Your task to perform on an android device: allow cookies in the chrome app Image 0: 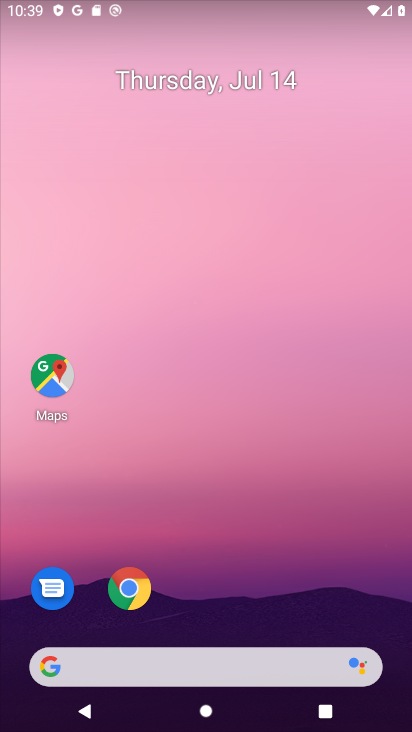
Step 0: click (142, 600)
Your task to perform on an android device: allow cookies in the chrome app Image 1: 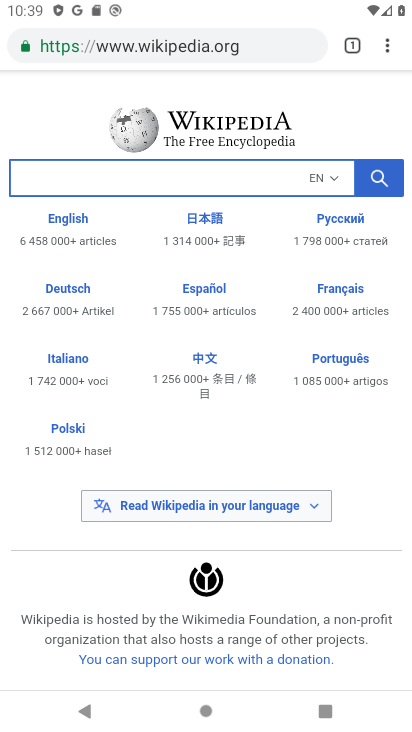
Step 1: drag from (396, 43) to (222, 598)
Your task to perform on an android device: allow cookies in the chrome app Image 2: 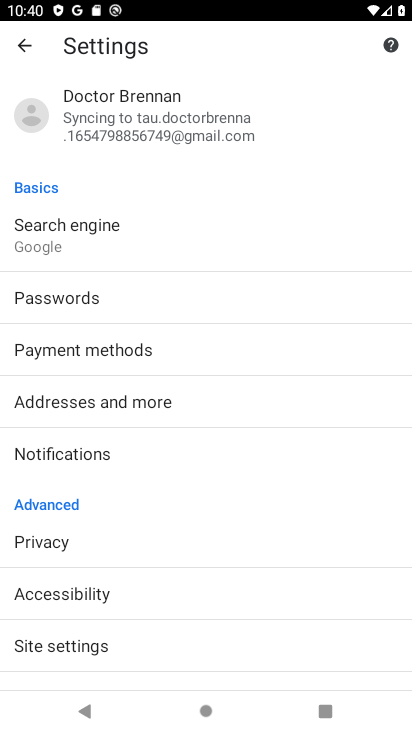
Step 2: click (62, 656)
Your task to perform on an android device: allow cookies in the chrome app Image 3: 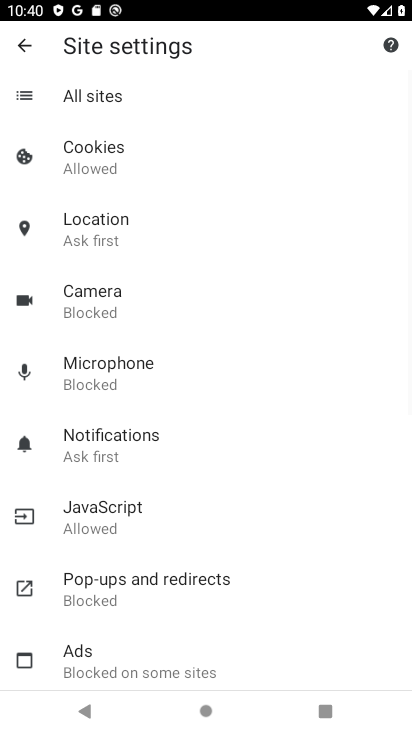
Step 3: click (92, 156)
Your task to perform on an android device: allow cookies in the chrome app Image 4: 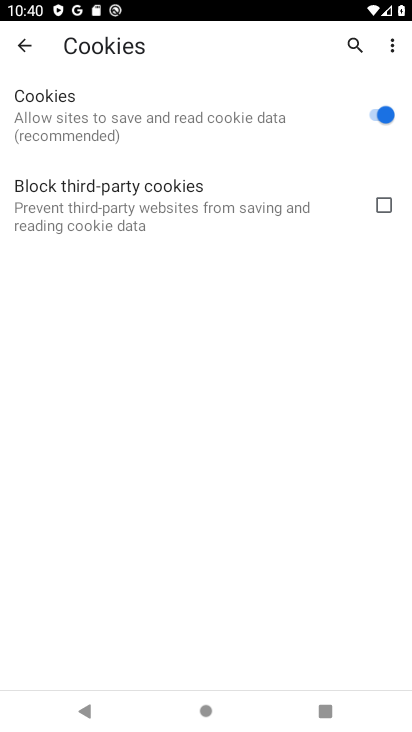
Step 4: task complete